Your task to perform on an android device: turn notification dots on Image 0: 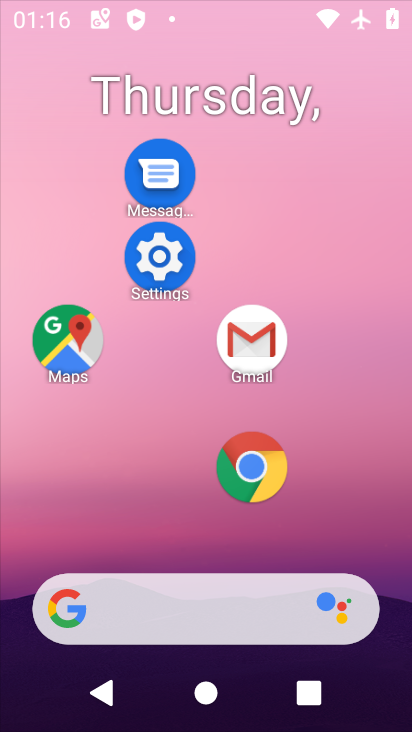
Step 0: click (223, 295)
Your task to perform on an android device: turn notification dots on Image 1: 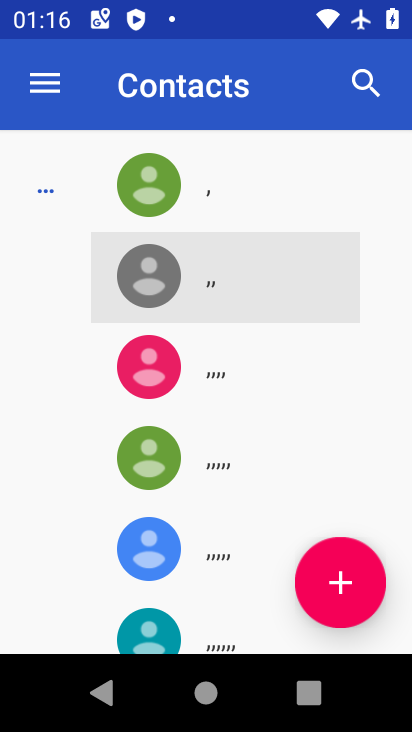
Step 1: drag from (224, 516) to (208, 255)
Your task to perform on an android device: turn notification dots on Image 2: 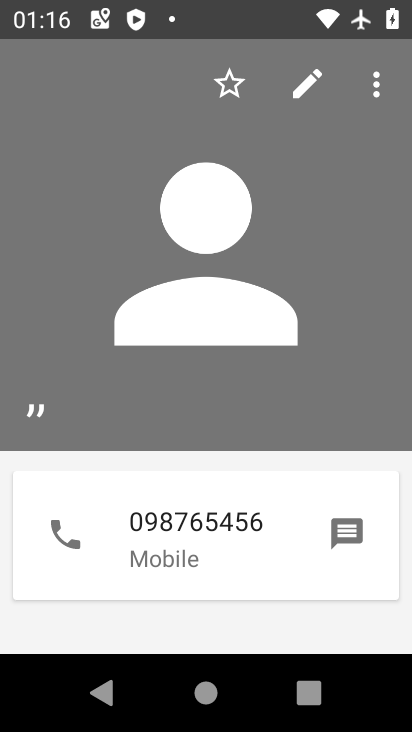
Step 2: press home button
Your task to perform on an android device: turn notification dots on Image 3: 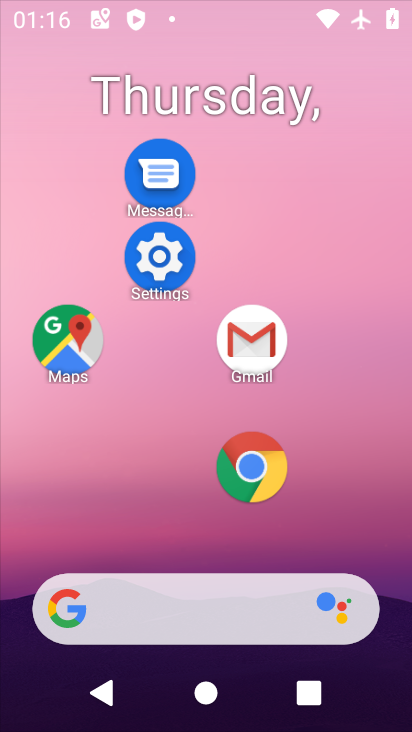
Step 3: drag from (182, 572) to (196, 215)
Your task to perform on an android device: turn notification dots on Image 4: 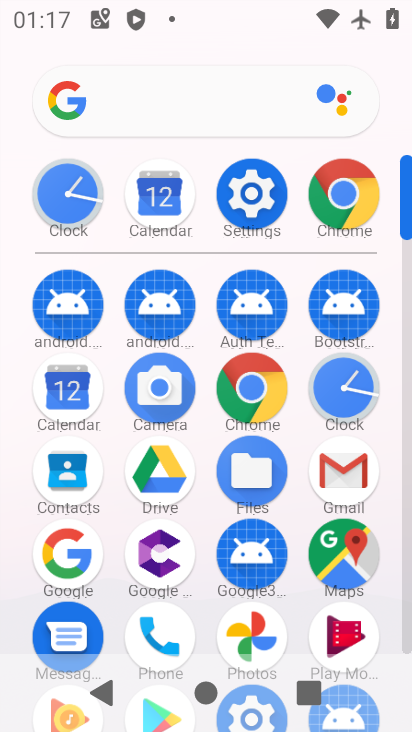
Step 4: click (261, 195)
Your task to perform on an android device: turn notification dots on Image 5: 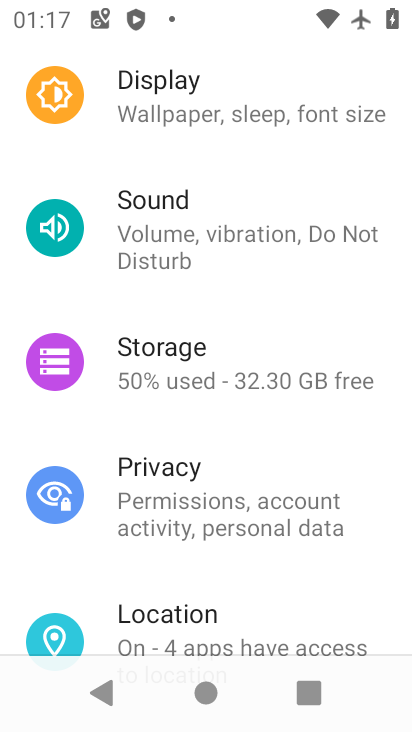
Step 5: drag from (163, 569) to (264, 166)
Your task to perform on an android device: turn notification dots on Image 6: 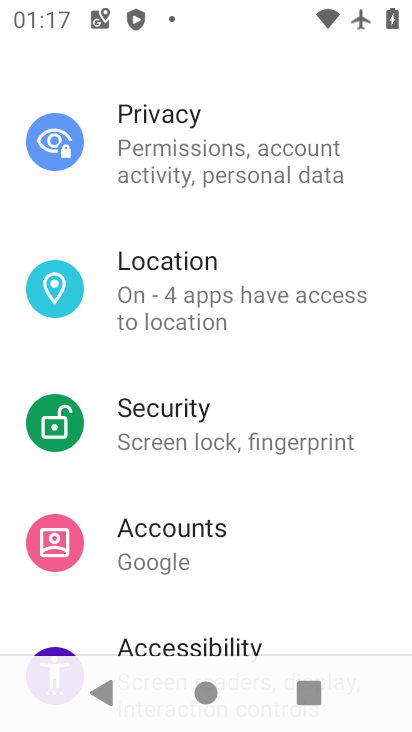
Step 6: drag from (219, 167) to (277, 691)
Your task to perform on an android device: turn notification dots on Image 7: 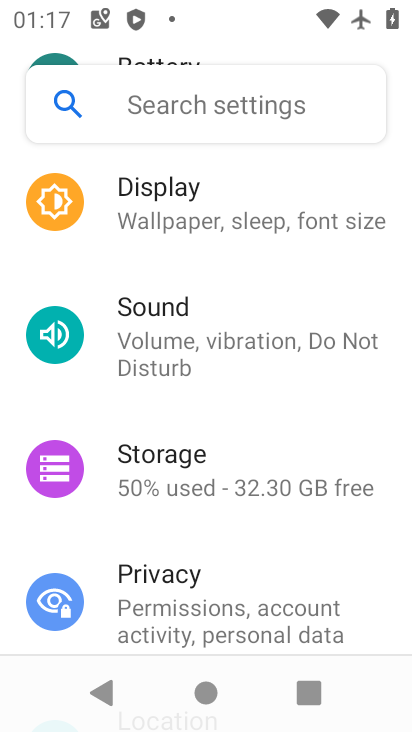
Step 7: drag from (231, 224) to (254, 565)
Your task to perform on an android device: turn notification dots on Image 8: 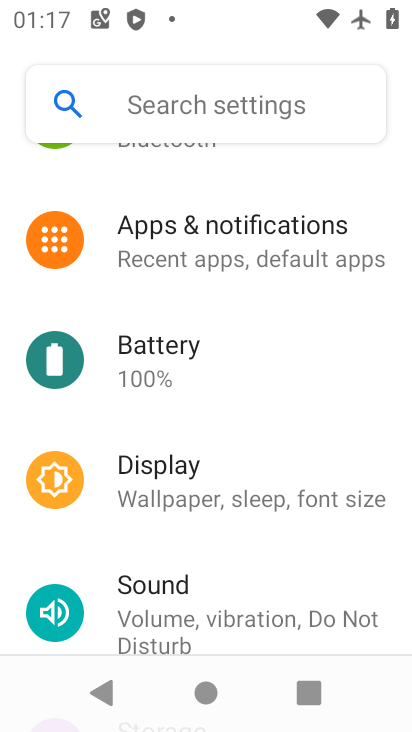
Step 8: click (222, 236)
Your task to perform on an android device: turn notification dots on Image 9: 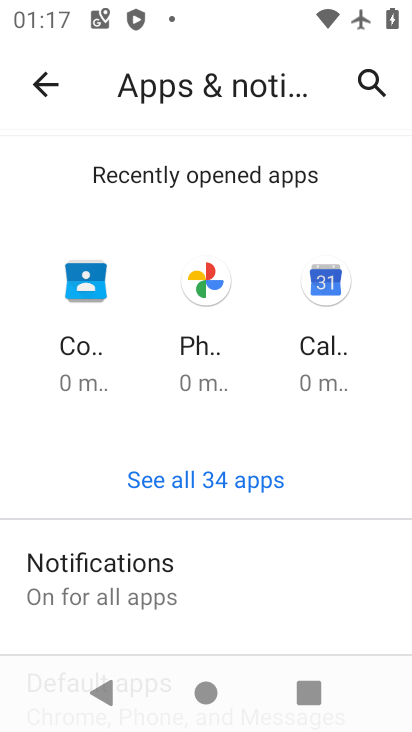
Step 9: drag from (194, 632) to (281, 9)
Your task to perform on an android device: turn notification dots on Image 10: 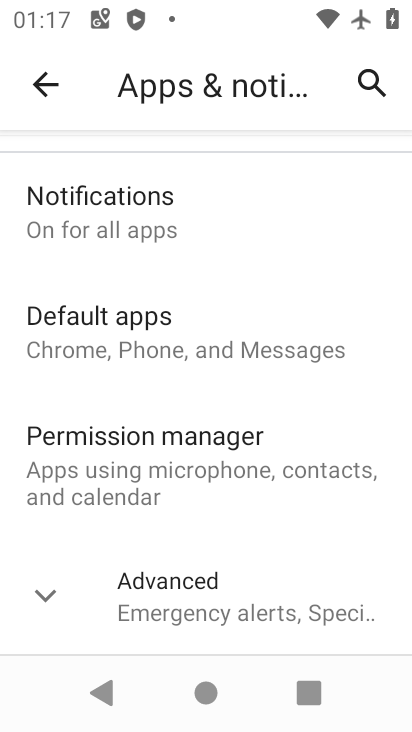
Step 10: click (131, 201)
Your task to perform on an android device: turn notification dots on Image 11: 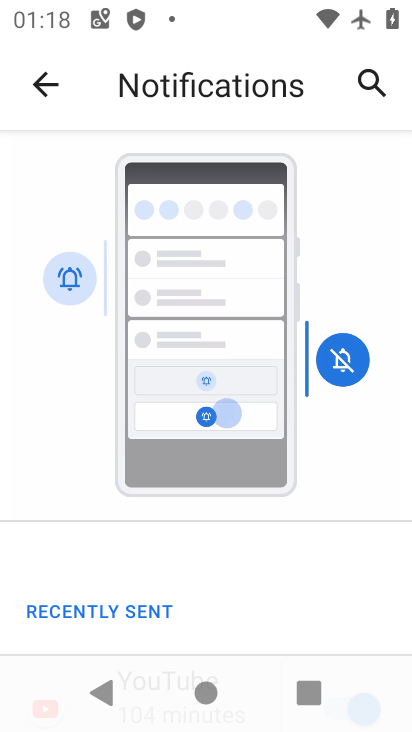
Step 11: drag from (214, 538) to (252, 167)
Your task to perform on an android device: turn notification dots on Image 12: 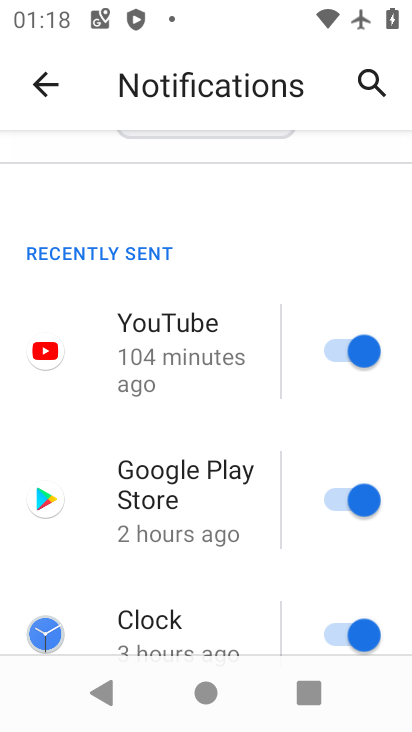
Step 12: drag from (233, 514) to (293, 120)
Your task to perform on an android device: turn notification dots on Image 13: 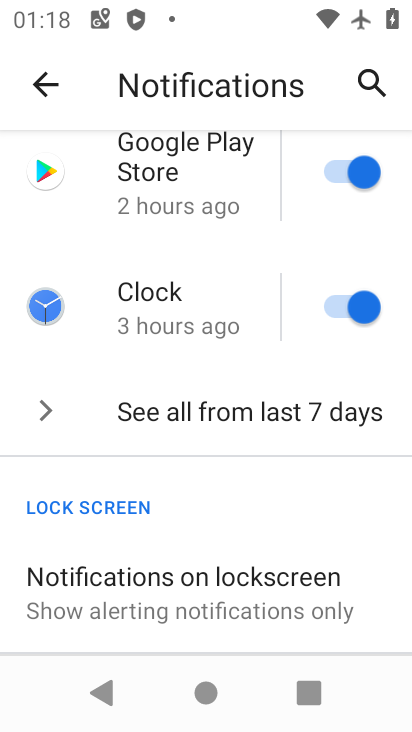
Step 13: drag from (226, 546) to (254, 238)
Your task to perform on an android device: turn notification dots on Image 14: 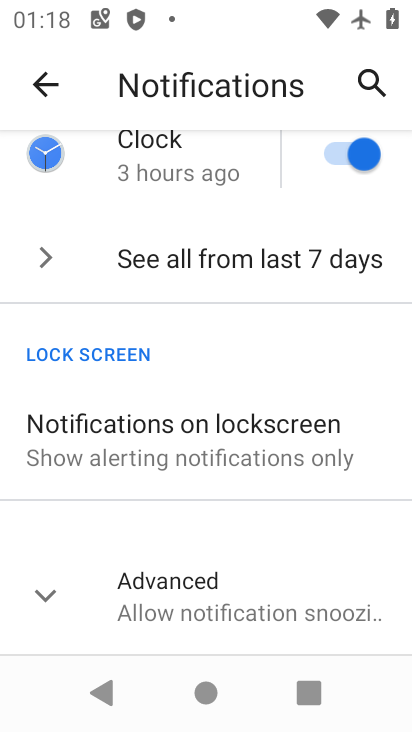
Step 14: click (195, 606)
Your task to perform on an android device: turn notification dots on Image 15: 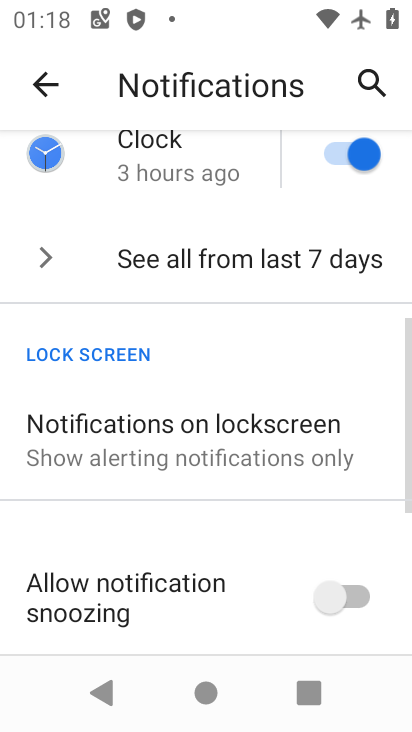
Step 15: click (250, 177)
Your task to perform on an android device: turn notification dots on Image 16: 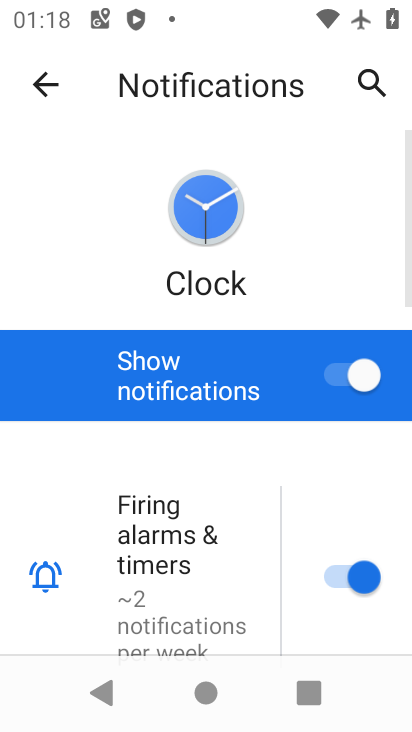
Step 16: click (37, 89)
Your task to perform on an android device: turn notification dots on Image 17: 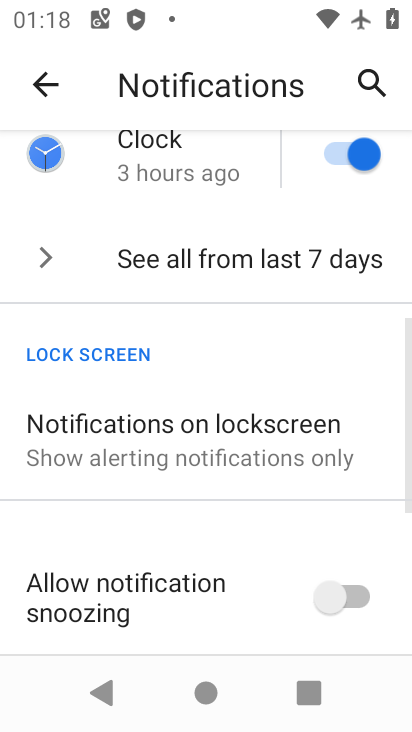
Step 17: drag from (204, 420) to (252, 139)
Your task to perform on an android device: turn notification dots on Image 18: 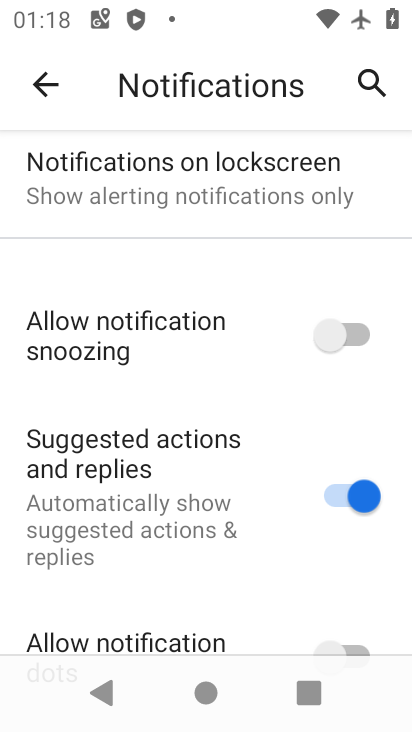
Step 18: drag from (245, 529) to (265, 258)
Your task to perform on an android device: turn notification dots on Image 19: 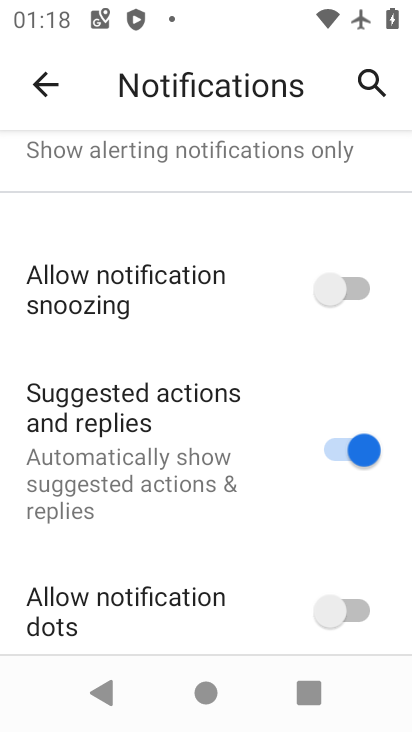
Step 19: click (322, 642)
Your task to perform on an android device: turn notification dots on Image 20: 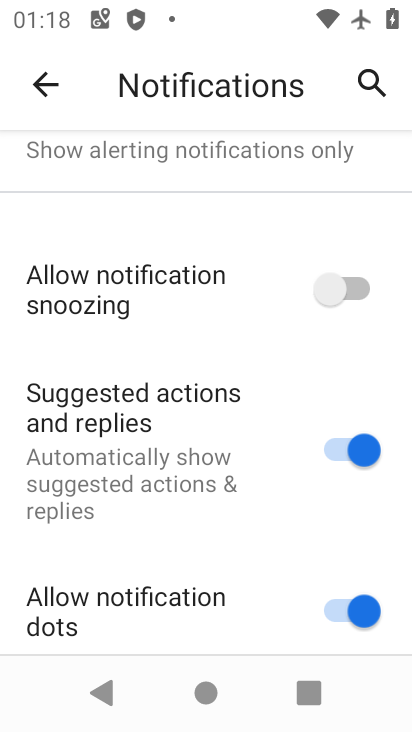
Step 20: task complete